Your task to perform on an android device: toggle airplane mode Image 0: 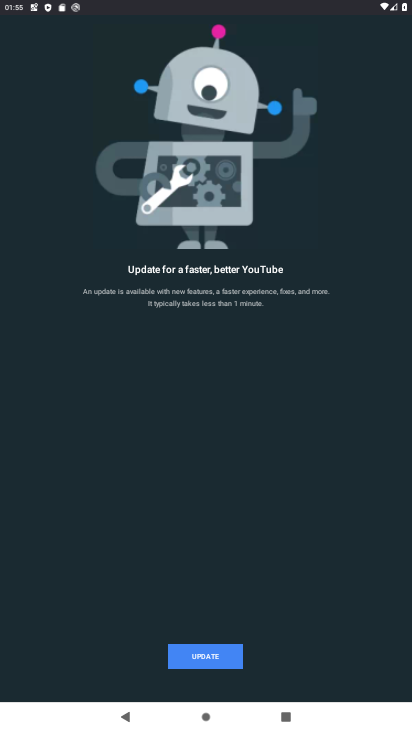
Step 0: press back button
Your task to perform on an android device: toggle airplane mode Image 1: 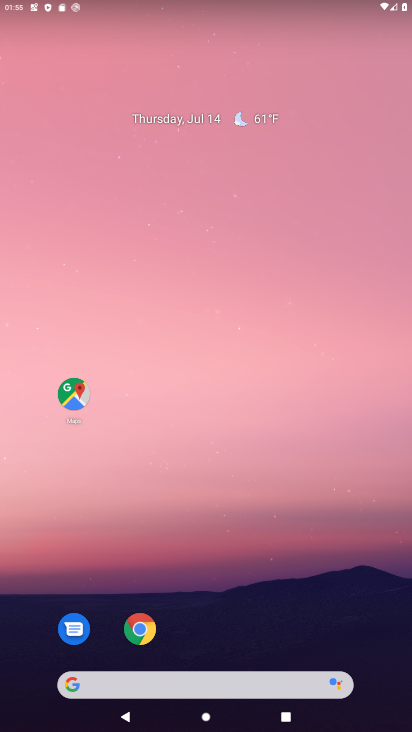
Step 1: drag from (372, 3) to (290, 455)
Your task to perform on an android device: toggle airplane mode Image 2: 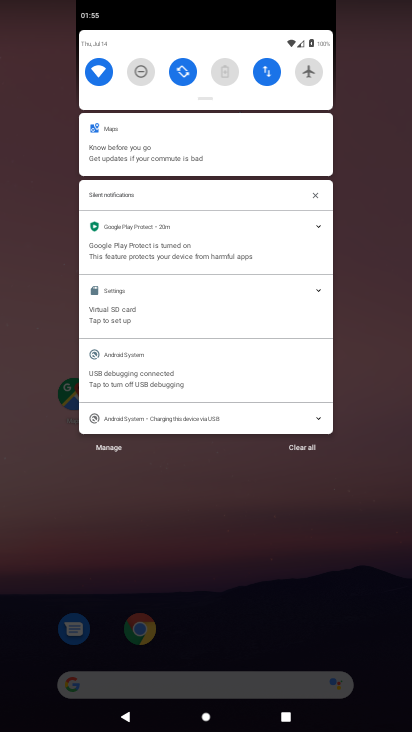
Step 2: click (311, 80)
Your task to perform on an android device: toggle airplane mode Image 3: 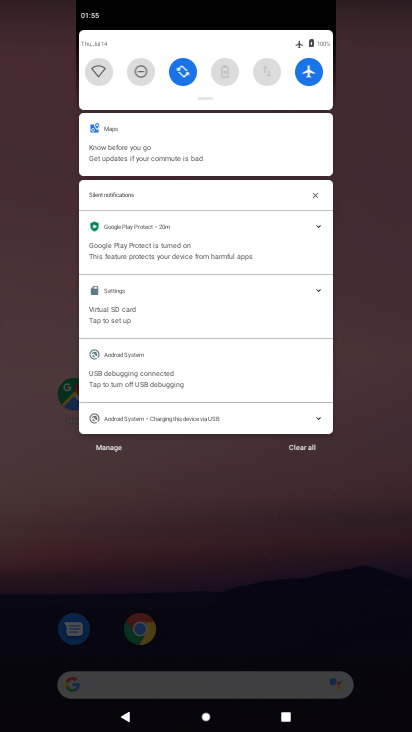
Step 3: task complete